Your task to perform on an android device: Go to Google maps Image 0: 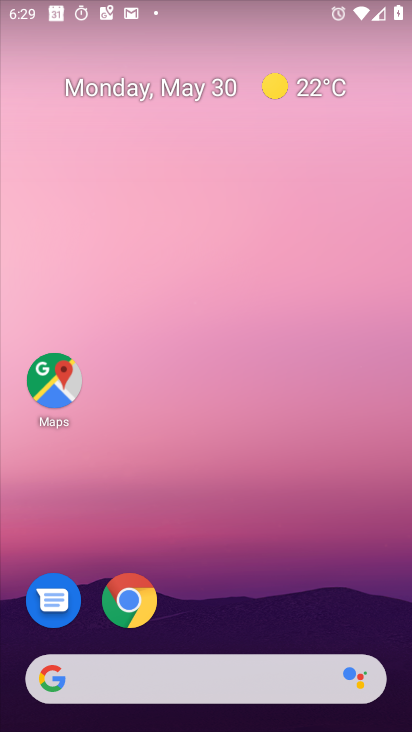
Step 0: press home button
Your task to perform on an android device: Go to Google maps Image 1: 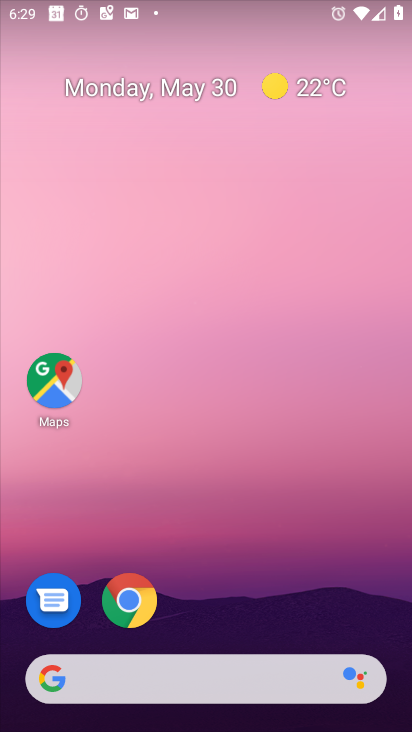
Step 1: click (66, 394)
Your task to perform on an android device: Go to Google maps Image 2: 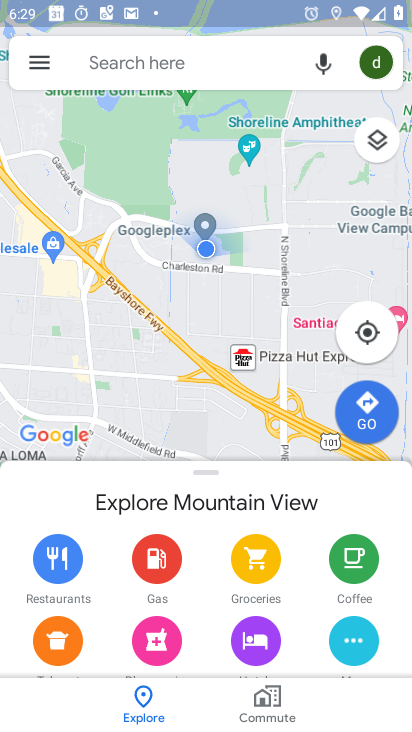
Step 2: task complete